Your task to perform on an android device: turn pop-ups on in chrome Image 0: 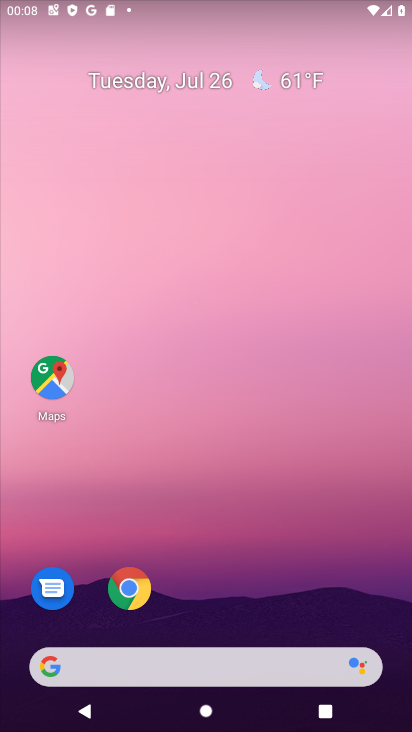
Step 0: press home button
Your task to perform on an android device: turn pop-ups on in chrome Image 1: 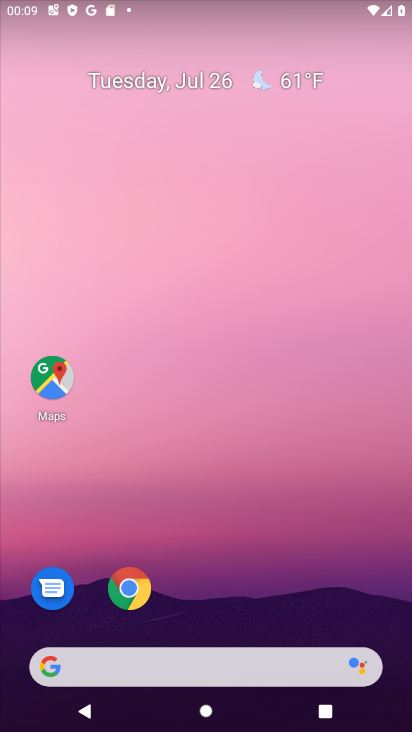
Step 1: drag from (220, 622) to (213, 69)
Your task to perform on an android device: turn pop-ups on in chrome Image 2: 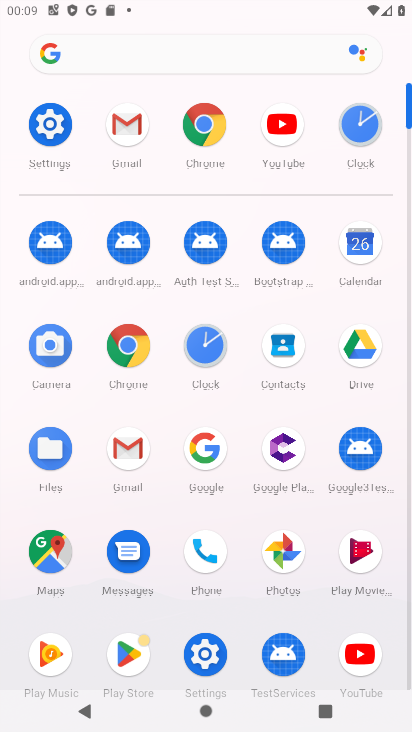
Step 2: click (203, 120)
Your task to perform on an android device: turn pop-ups on in chrome Image 3: 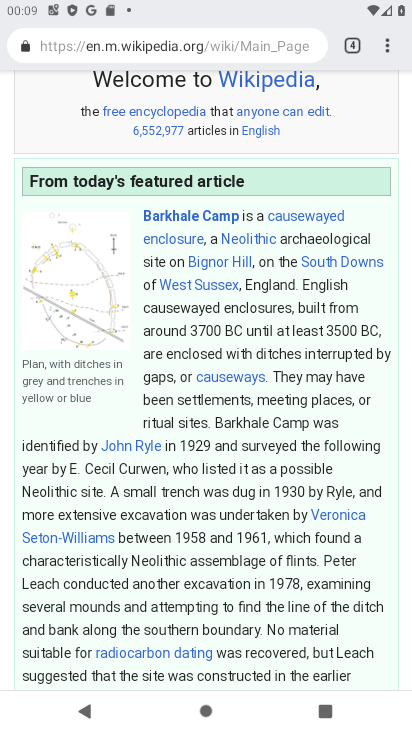
Step 3: click (390, 45)
Your task to perform on an android device: turn pop-ups on in chrome Image 4: 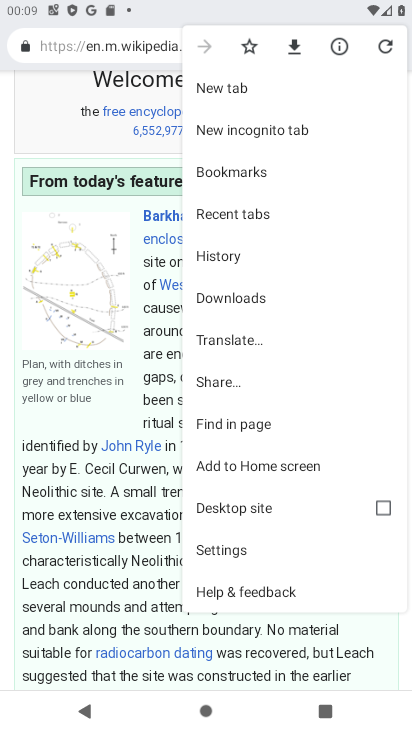
Step 4: click (250, 543)
Your task to perform on an android device: turn pop-ups on in chrome Image 5: 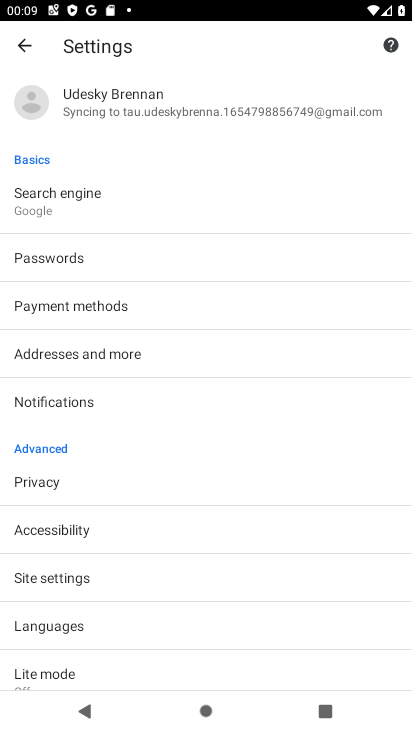
Step 5: click (112, 578)
Your task to perform on an android device: turn pop-ups on in chrome Image 6: 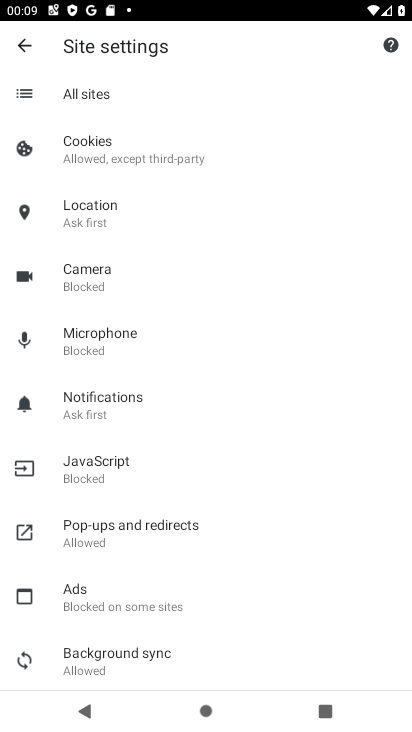
Step 6: click (121, 534)
Your task to perform on an android device: turn pop-ups on in chrome Image 7: 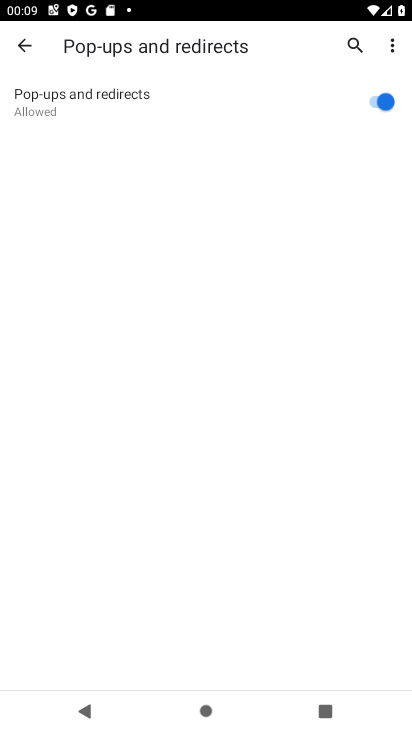
Step 7: task complete